Your task to perform on an android device: show emergency info Image 0: 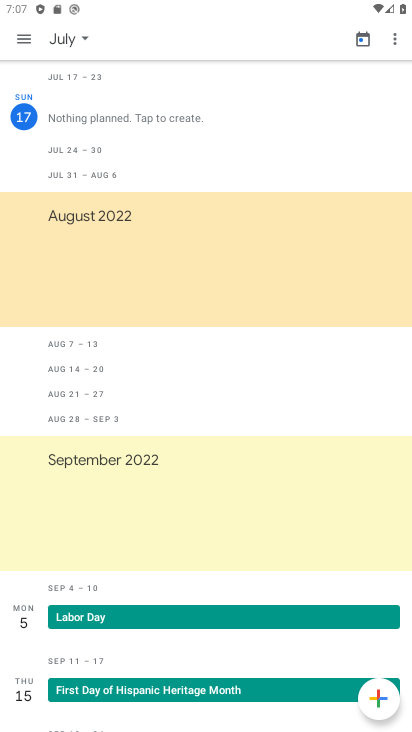
Step 0: press home button
Your task to perform on an android device: show emergency info Image 1: 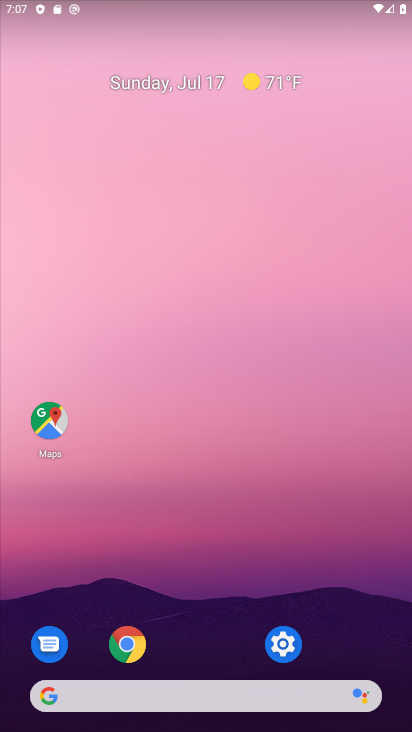
Step 1: click (273, 638)
Your task to perform on an android device: show emergency info Image 2: 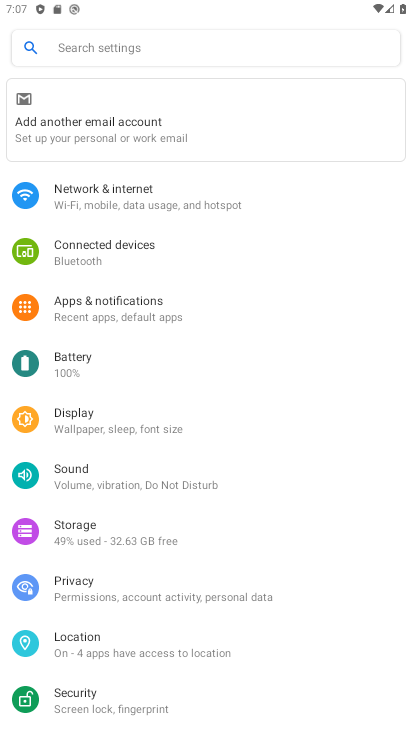
Step 2: click (99, 43)
Your task to perform on an android device: show emergency info Image 3: 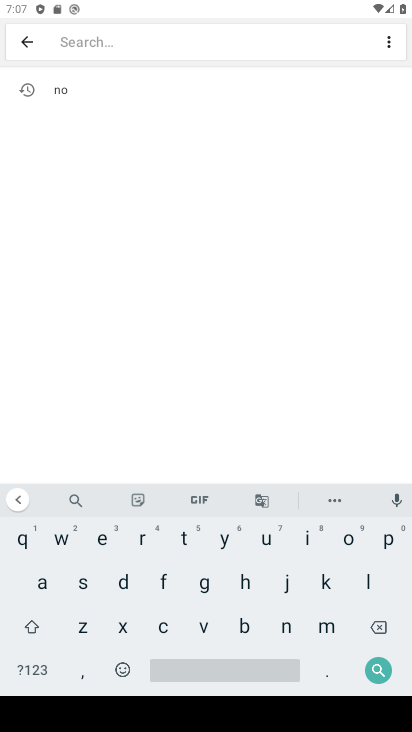
Step 3: click (100, 543)
Your task to perform on an android device: show emergency info Image 4: 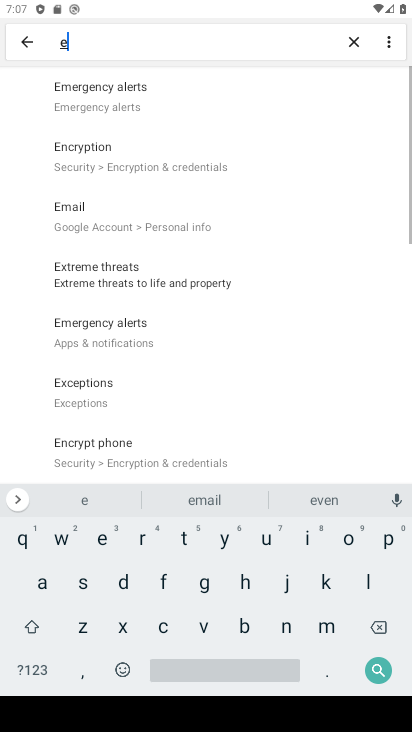
Step 4: click (327, 632)
Your task to perform on an android device: show emergency info Image 5: 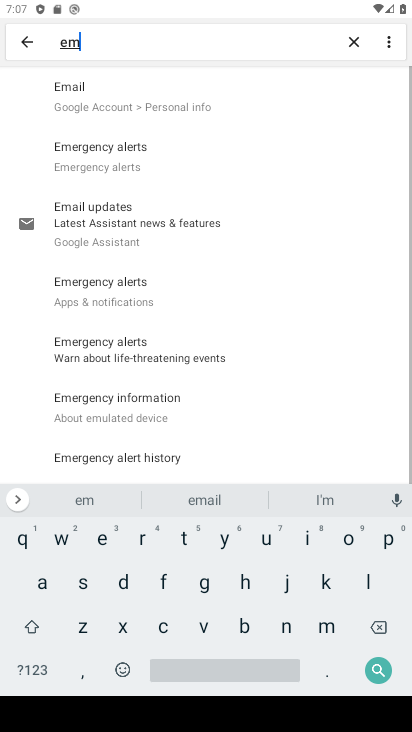
Step 5: click (94, 539)
Your task to perform on an android device: show emergency info Image 6: 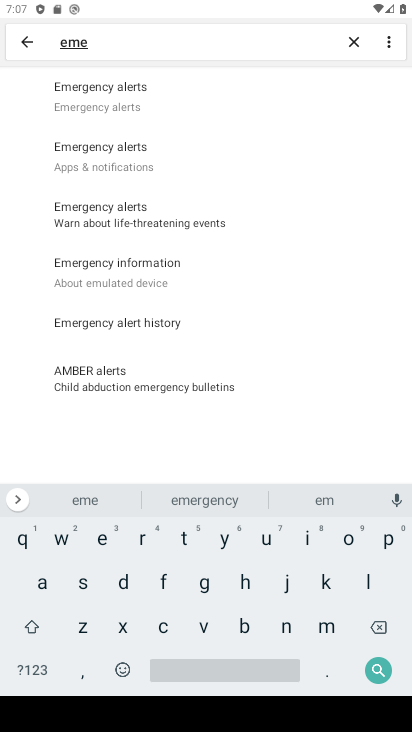
Step 6: click (158, 272)
Your task to perform on an android device: show emergency info Image 7: 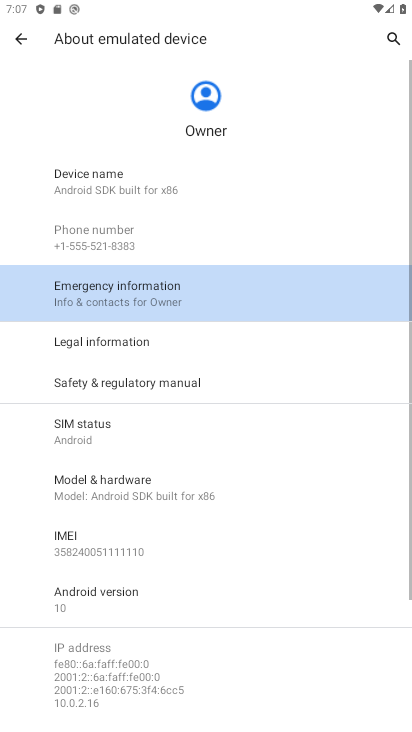
Step 7: click (135, 279)
Your task to perform on an android device: show emergency info Image 8: 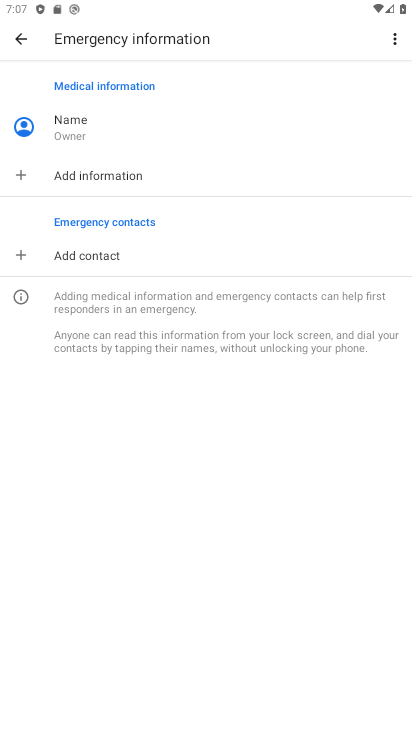
Step 8: task complete